Your task to perform on an android device: Open Chrome and go to the settings page Image 0: 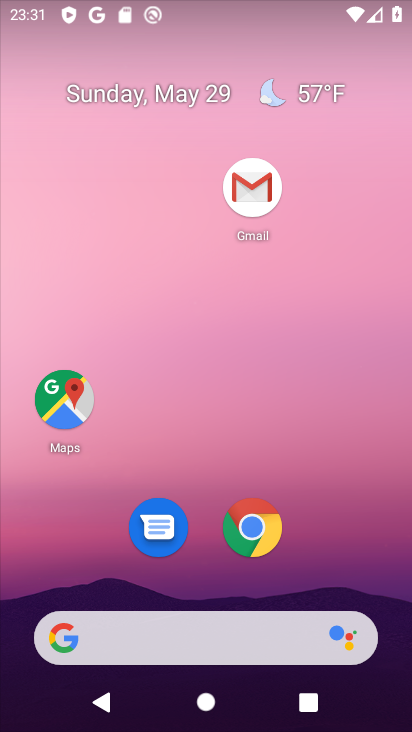
Step 0: click (253, 529)
Your task to perform on an android device: Open Chrome and go to the settings page Image 1: 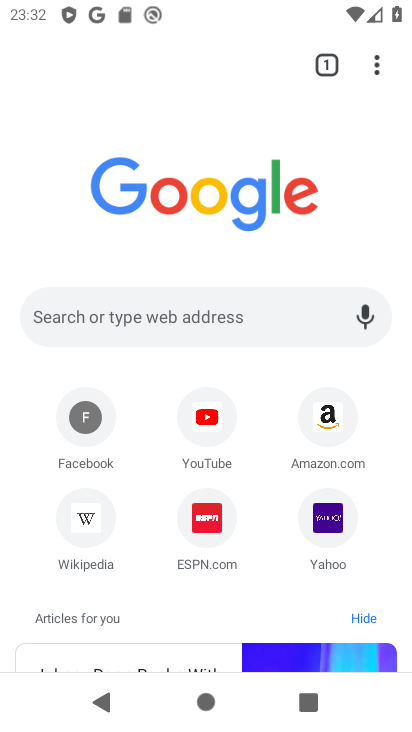
Step 1: click (375, 66)
Your task to perform on an android device: Open Chrome and go to the settings page Image 2: 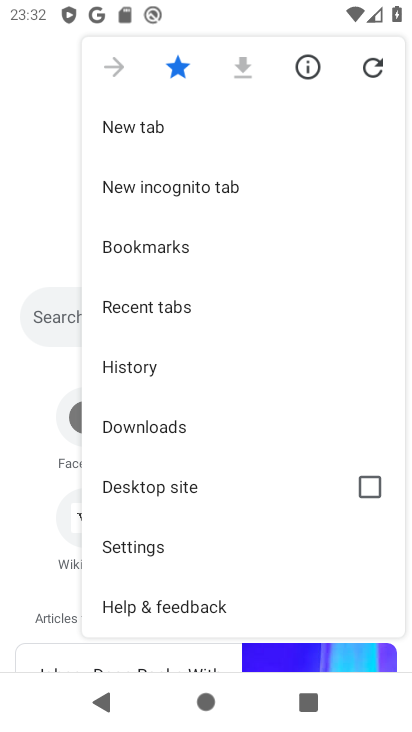
Step 2: click (137, 549)
Your task to perform on an android device: Open Chrome and go to the settings page Image 3: 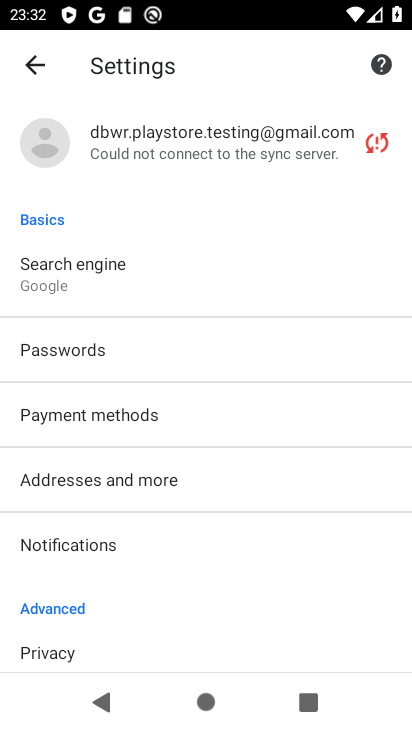
Step 3: task complete